Your task to perform on an android device: change the upload size in google photos Image 0: 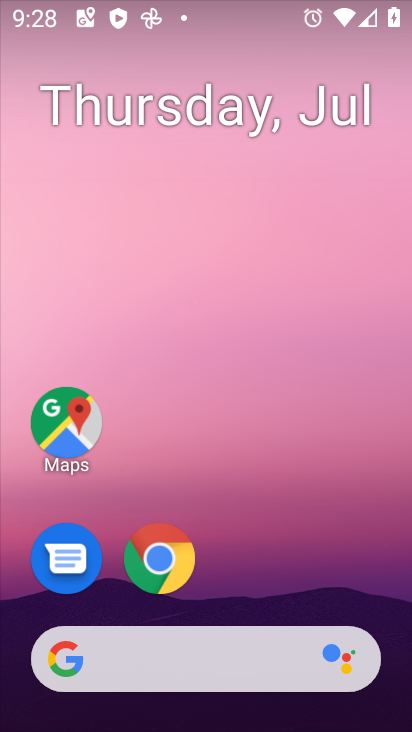
Step 0: drag from (363, 560) to (377, 75)
Your task to perform on an android device: change the upload size in google photos Image 1: 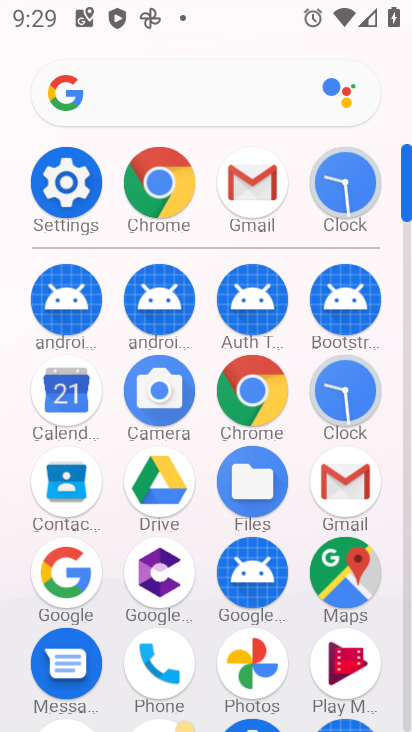
Step 1: click (265, 658)
Your task to perform on an android device: change the upload size in google photos Image 2: 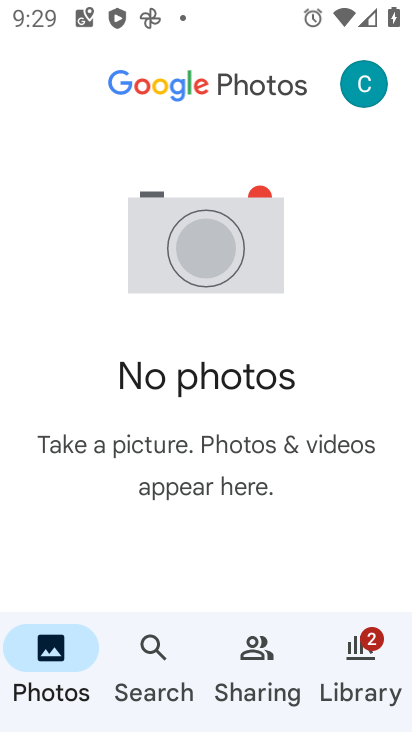
Step 2: click (381, 87)
Your task to perform on an android device: change the upload size in google photos Image 3: 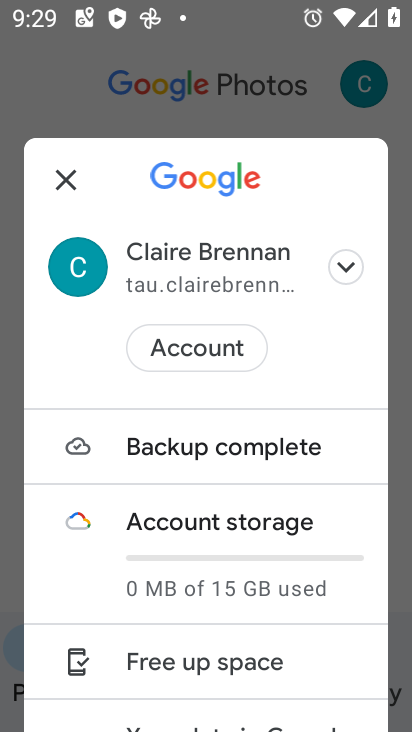
Step 3: drag from (331, 504) to (332, 359)
Your task to perform on an android device: change the upload size in google photos Image 4: 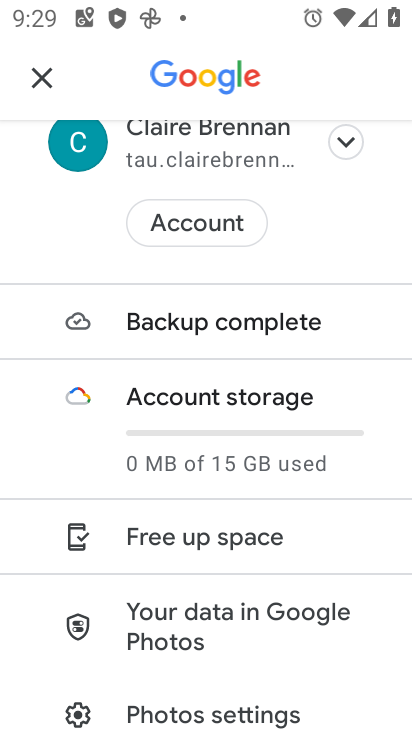
Step 4: drag from (320, 559) to (316, 397)
Your task to perform on an android device: change the upload size in google photos Image 5: 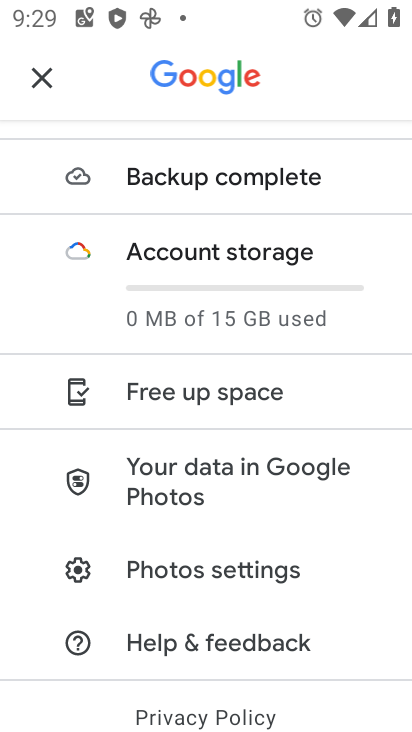
Step 5: click (308, 568)
Your task to perform on an android device: change the upload size in google photos Image 6: 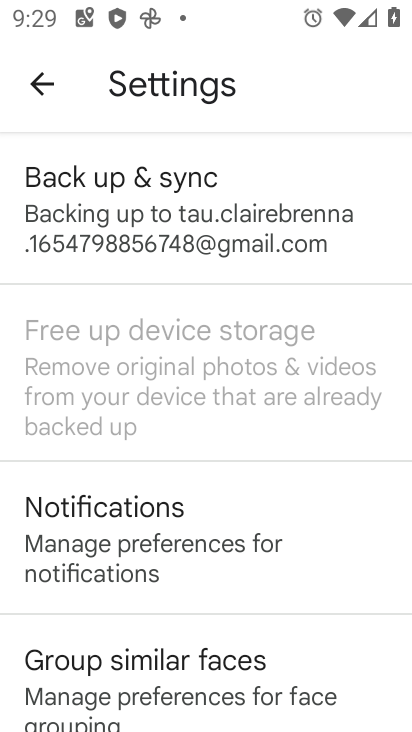
Step 6: drag from (343, 561) to (347, 397)
Your task to perform on an android device: change the upload size in google photos Image 7: 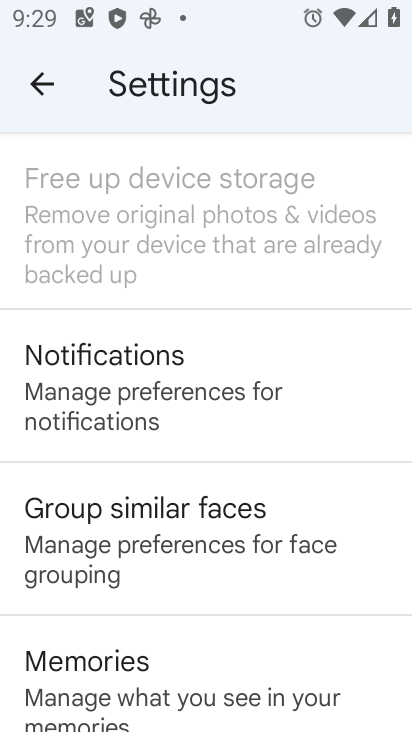
Step 7: drag from (339, 226) to (353, 449)
Your task to perform on an android device: change the upload size in google photos Image 8: 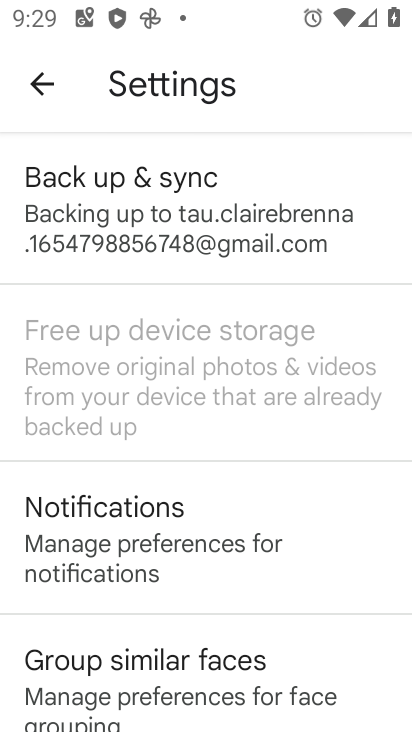
Step 8: click (311, 237)
Your task to perform on an android device: change the upload size in google photos Image 9: 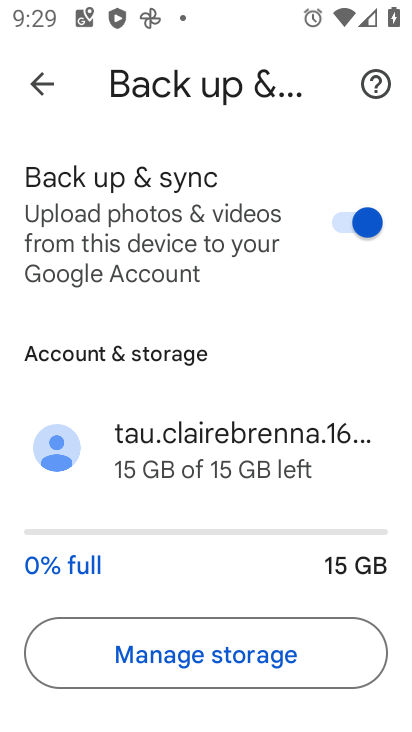
Step 9: drag from (281, 413) to (296, 273)
Your task to perform on an android device: change the upload size in google photos Image 10: 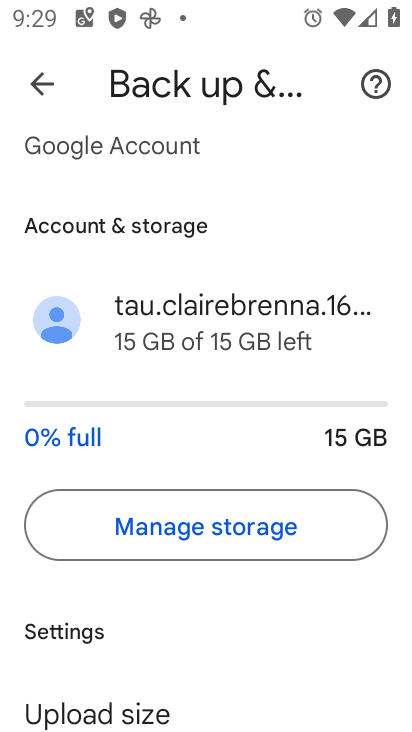
Step 10: drag from (275, 395) to (280, 269)
Your task to perform on an android device: change the upload size in google photos Image 11: 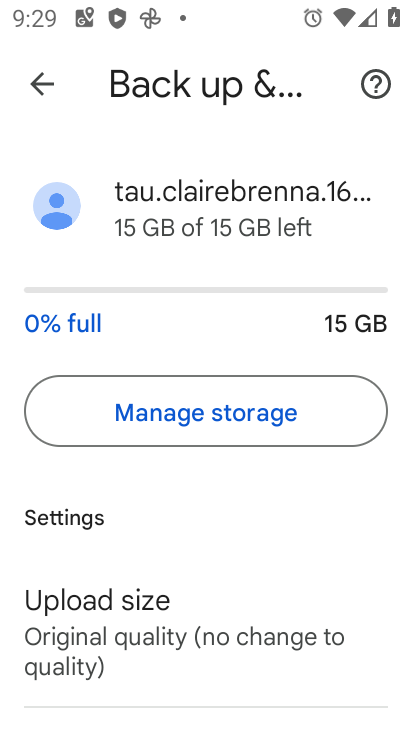
Step 11: drag from (285, 535) to (301, 256)
Your task to perform on an android device: change the upload size in google photos Image 12: 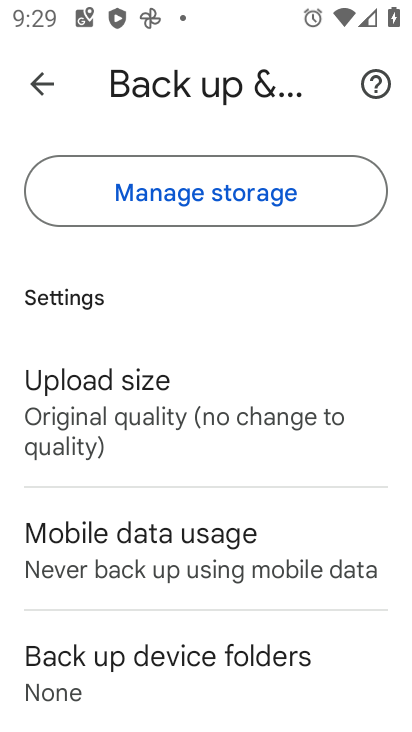
Step 12: click (277, 413)
Your task to perform on an android device: change the upload size in google photos Image 13: 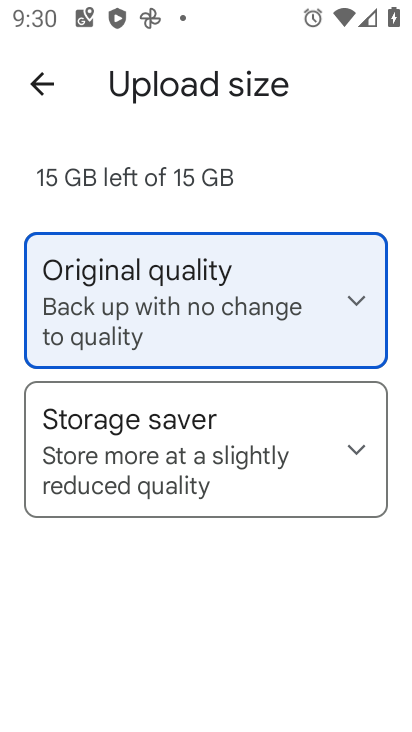
Step 13: click (237, 449)
Your task to perform on an android device: change the upload size in google photos Image 14: 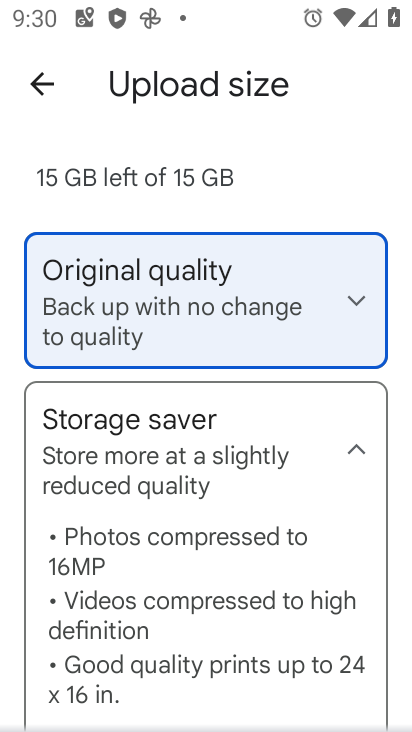
Step 14: drag from (235, 597) to (274, 365)
Your task to perform on an android device: change the upload size in google photos Image 15: 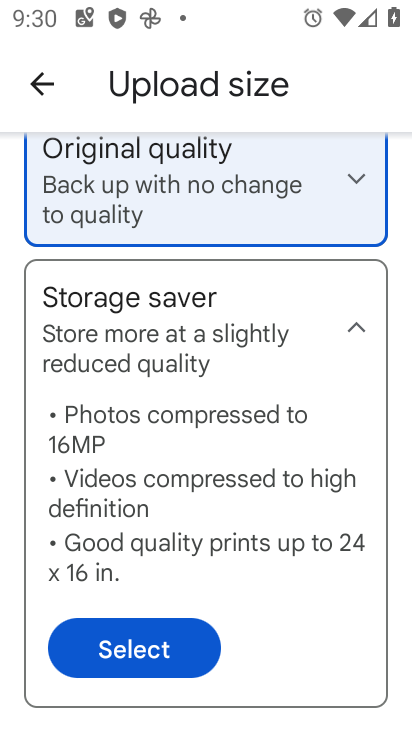
Step 15: click (185, 654)
Your task to perform on an android device: change the upload size in google photos Image 16: 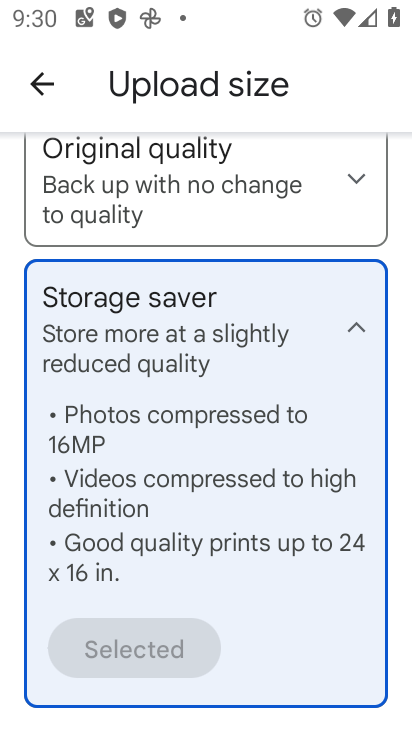
Step 16: task complete